Your task to perform on an android device: Open Reddit.com Image 0: 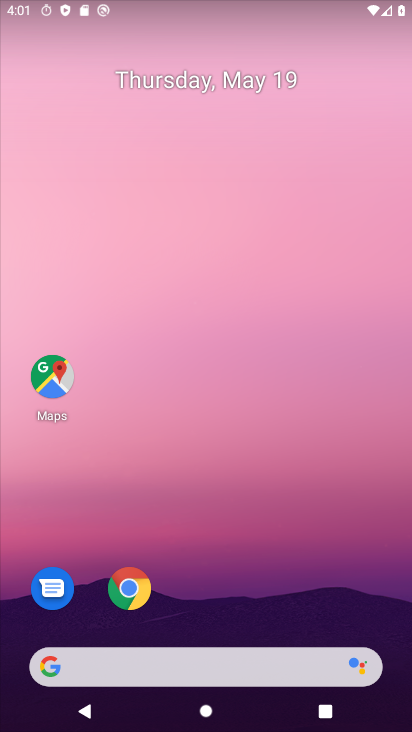
Step 0: drag from (214, 641) to (265, 38)
Your task to perform on an android device: Open Reddit.com Image 1: 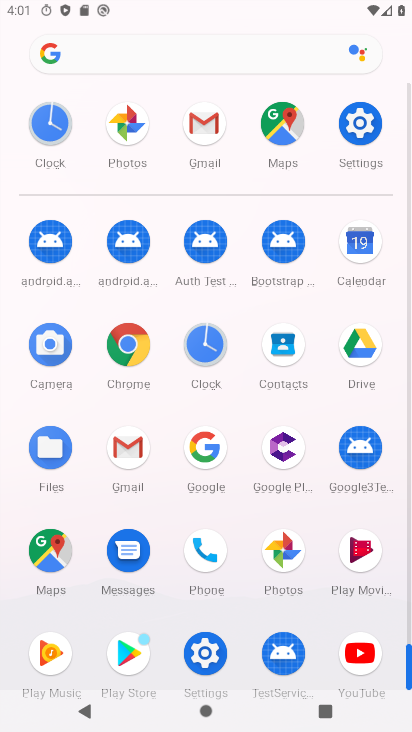
Step 1: click (124, 346)
Your task to perform on an android device: Open Reddit.com Image 2: 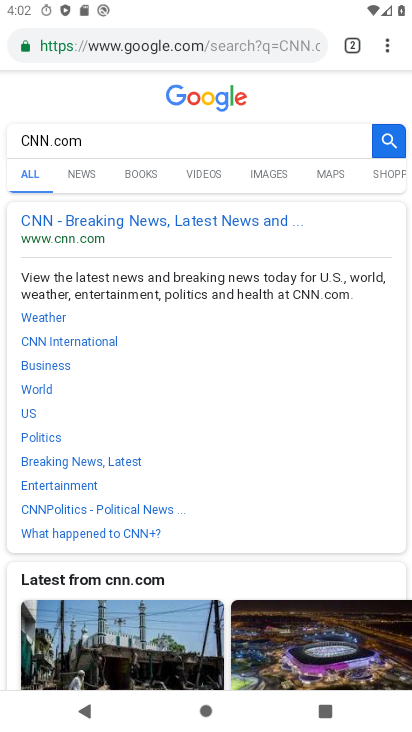
Step 2: click (167, 50)
Your task to perform on an android device: Open Reddit.com Image 3: 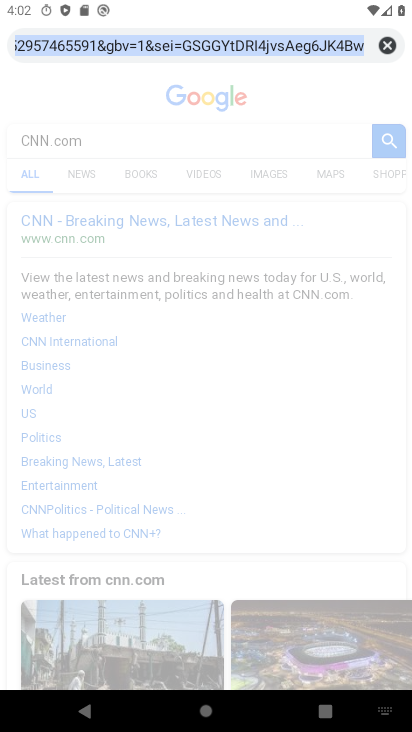
Step 3: type "Reddit.com"
Your task to perform on an android device: Open Reddit.com Image 4: 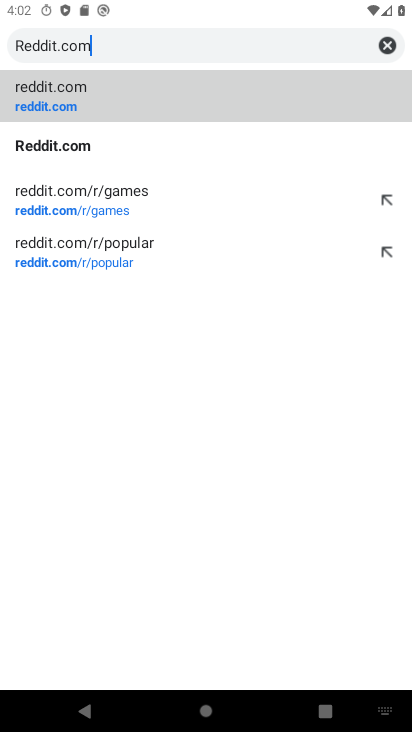
Step 4: click (69, 147)
Your task to perform on an android device: Open Reddit.com Image 5: 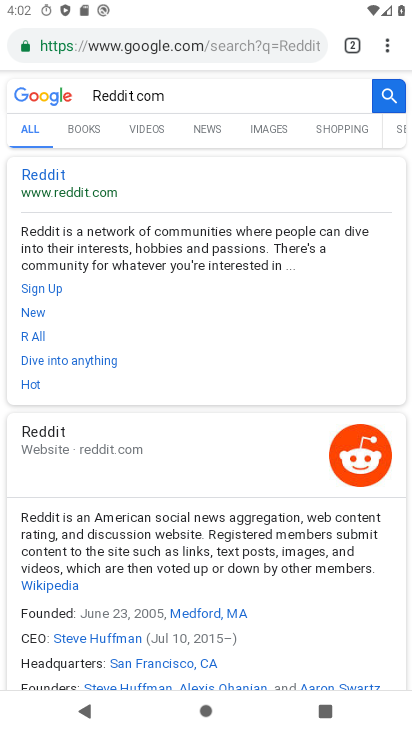
Step 5: task complete